Your task to perform on an android device: toggle sleep mode Image 0: 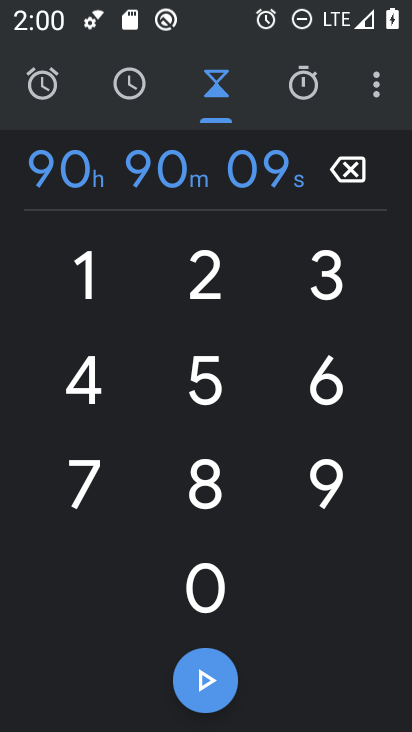
Step 0: press home button
Your task to perform on an android device: toggle sleep mode Image 1: 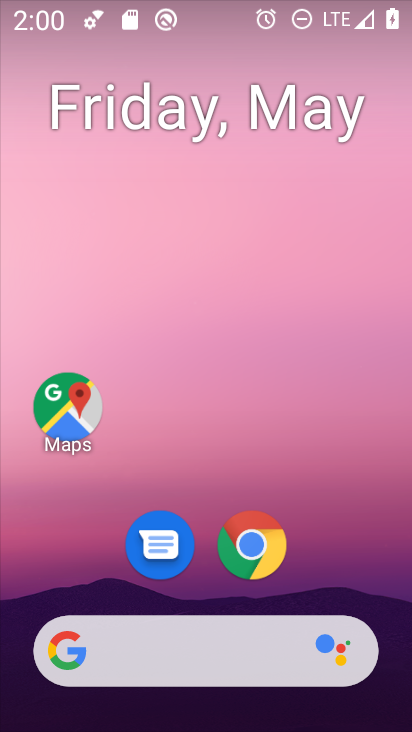
Step 1: drag from (330, 519) to (294, 208)
Your task to perform on an android device: toggle sleep mode Image 2: 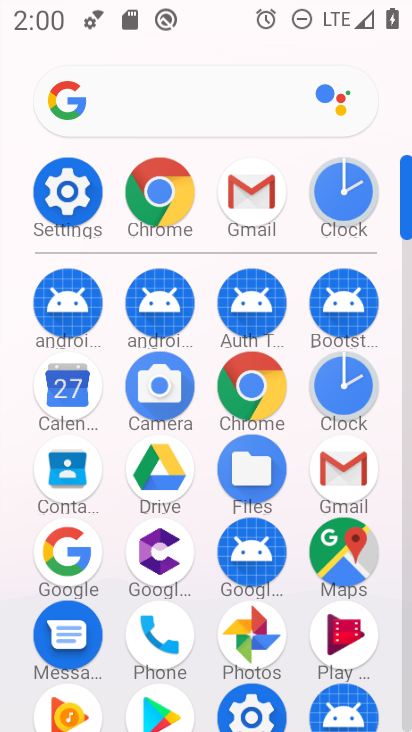
Step 2: click (65, 168)
Your task to perform on an android device: toggle sleep mode Image 3: 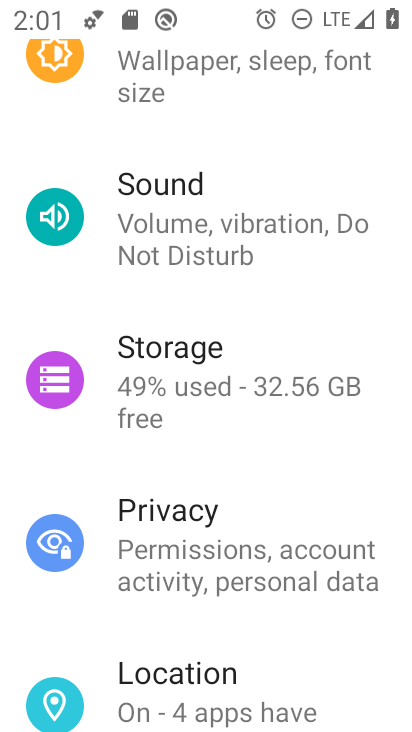
Step 3: task complete